Your task to perform on an android device: add a label to a message in the gmail app Image 0: 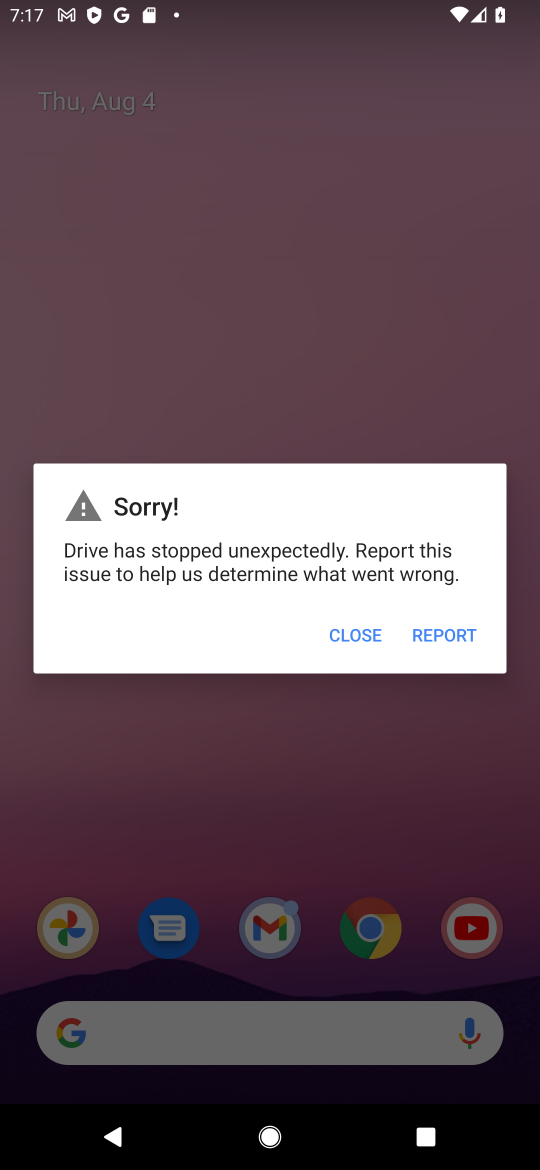
Step 0: click (345, 635)
Your task to perform on an android device: add a label to a message in the gmail app Image 1: 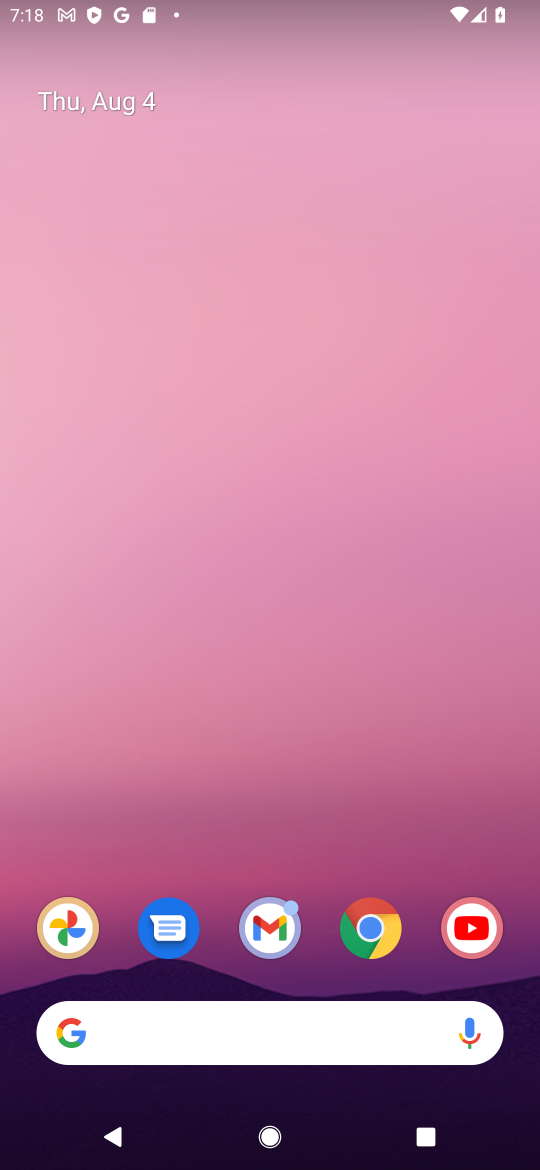
Step 1: click (272, 941)
Your task to perform on an android device: add a label to a message in the gmail app Image 2: 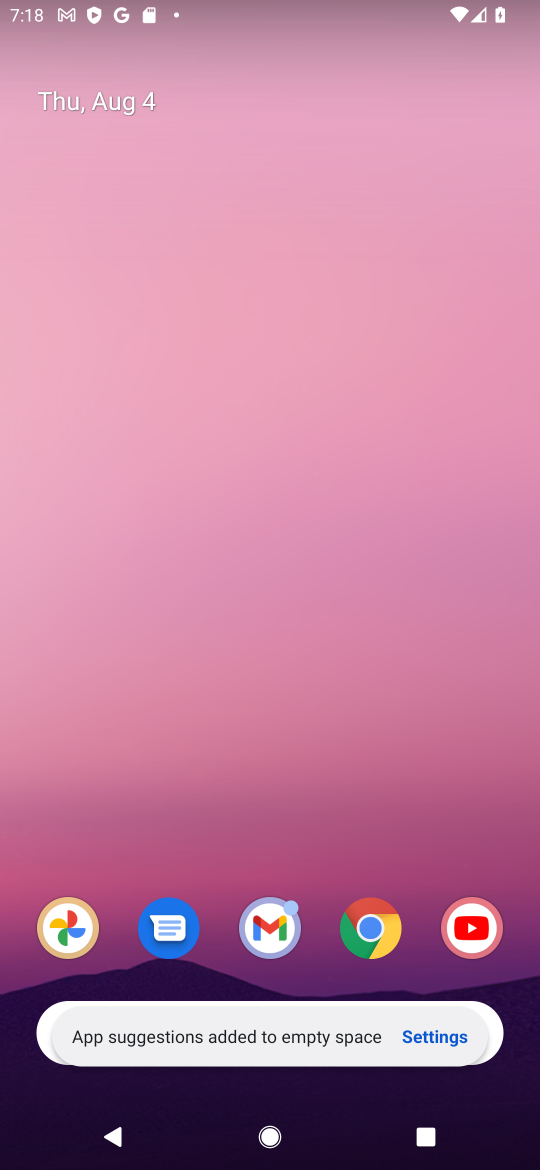
Step 2: click (279, 931)
Your task to perform on an android device: add a label to a message in the gmail app Image 3: 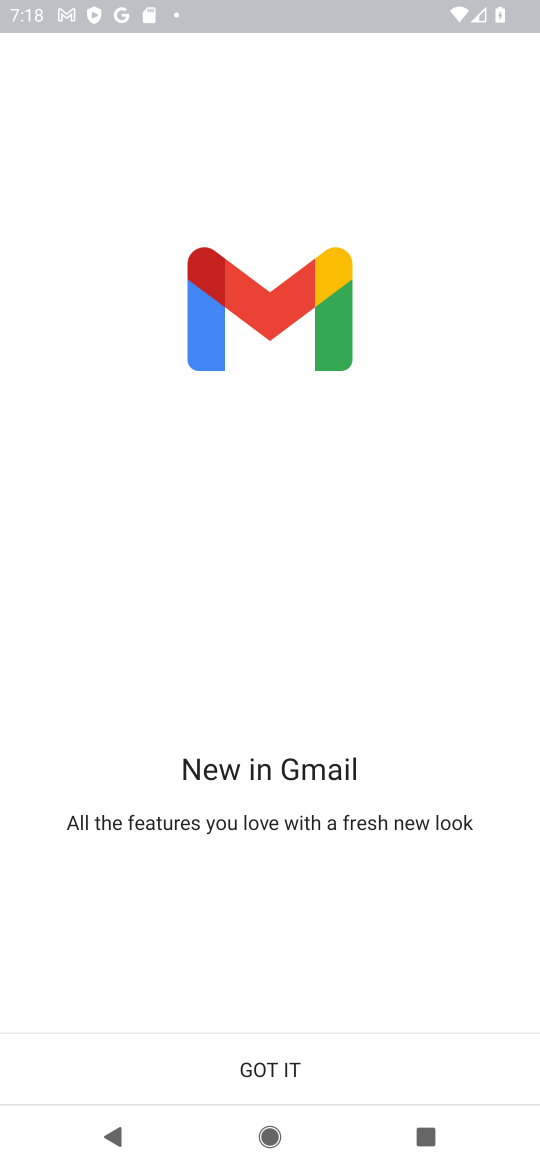
Step 3: click (283, 1073)
Your task to perform on an android device: add a label to a message in the gmail app Image 4: 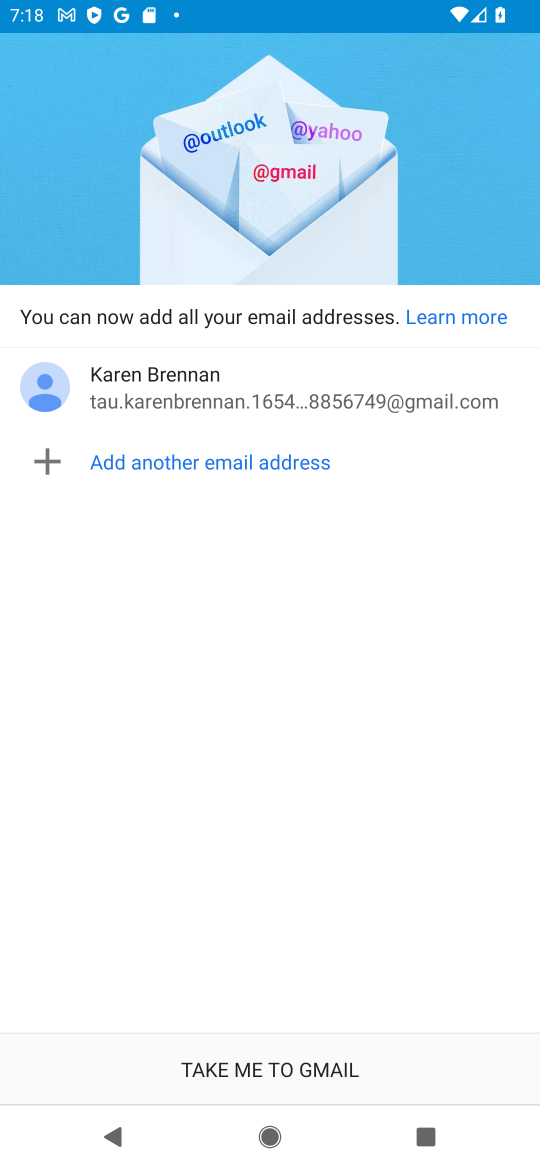
Step 4: click (291, 1075)
Your task to perform on an android device: add a label to a message in the gmail app Image 5: 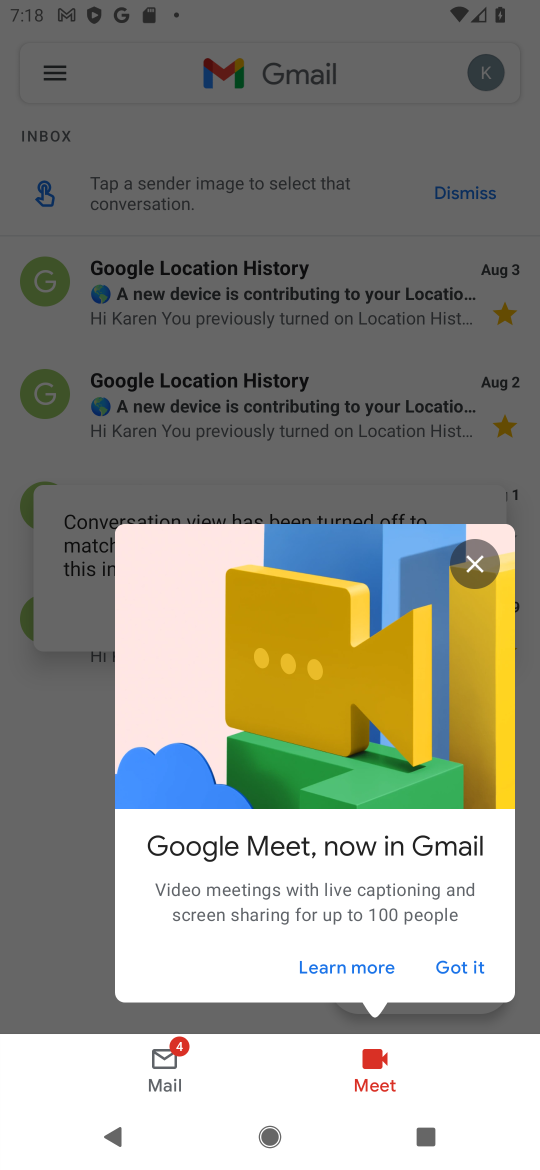
Step 5: click (479, 556)
Your task to perform on an android device: add a label to a message in the gmail app Image 6: 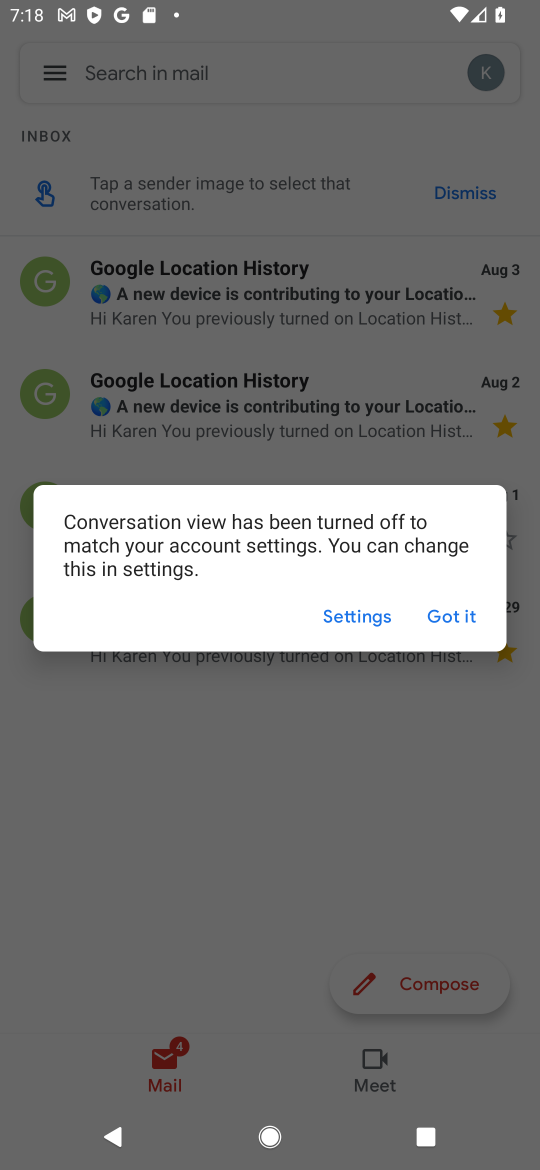
Step 6: click (455, 615)
Your task to perform on an android device: add a label to a message in the gmail app Image 7: 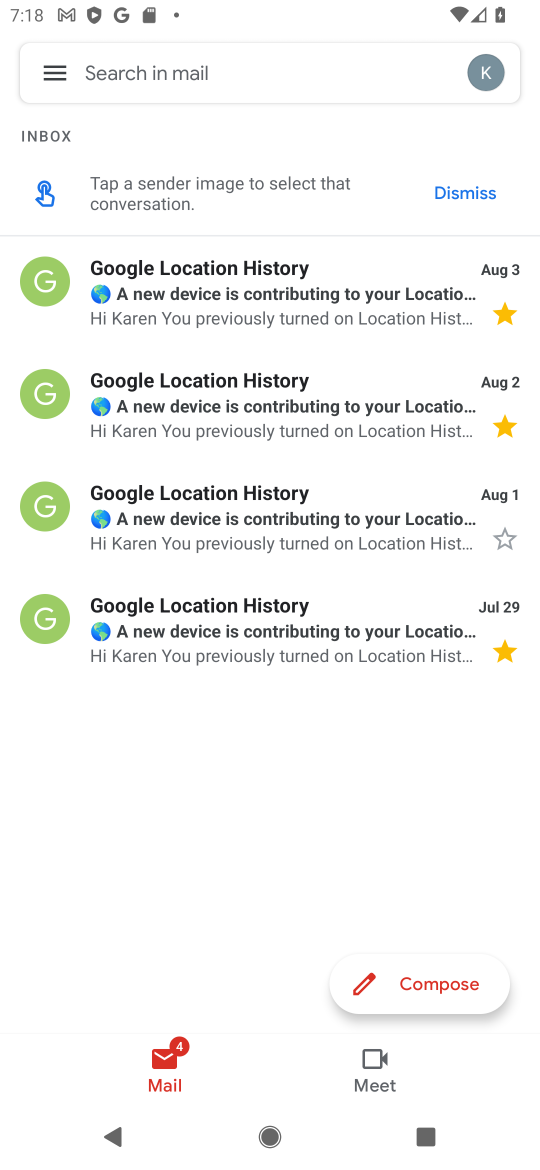
Step 7: click (44, 503)
Your task to perform on an android device: add a label to a message in the gmail app Image 8: 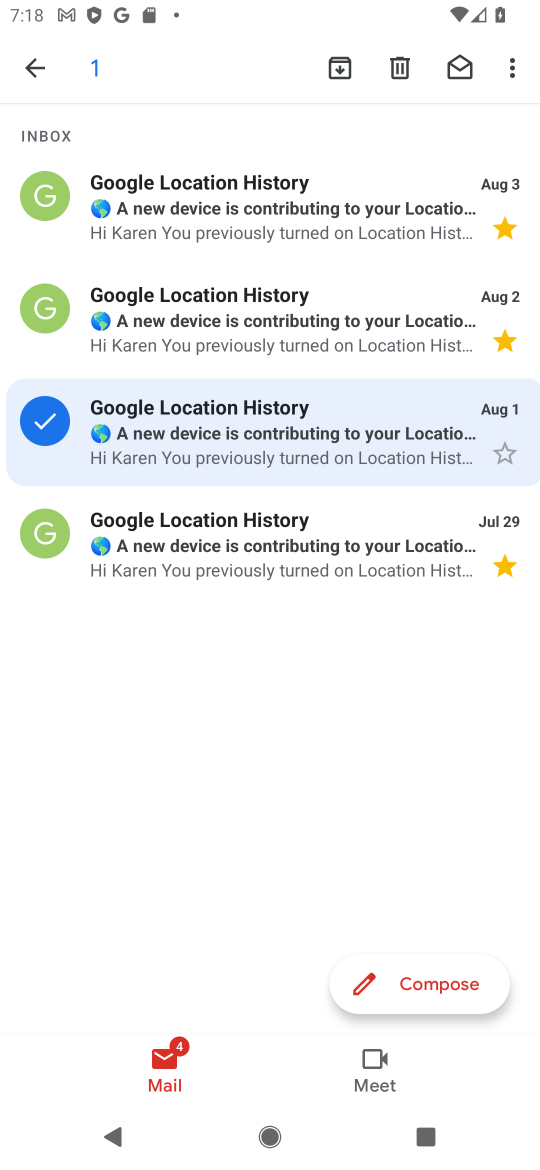
Step 8: click (502, 67)
Your task to perform on an android device: add a label to a message in the gmail app Image 9: 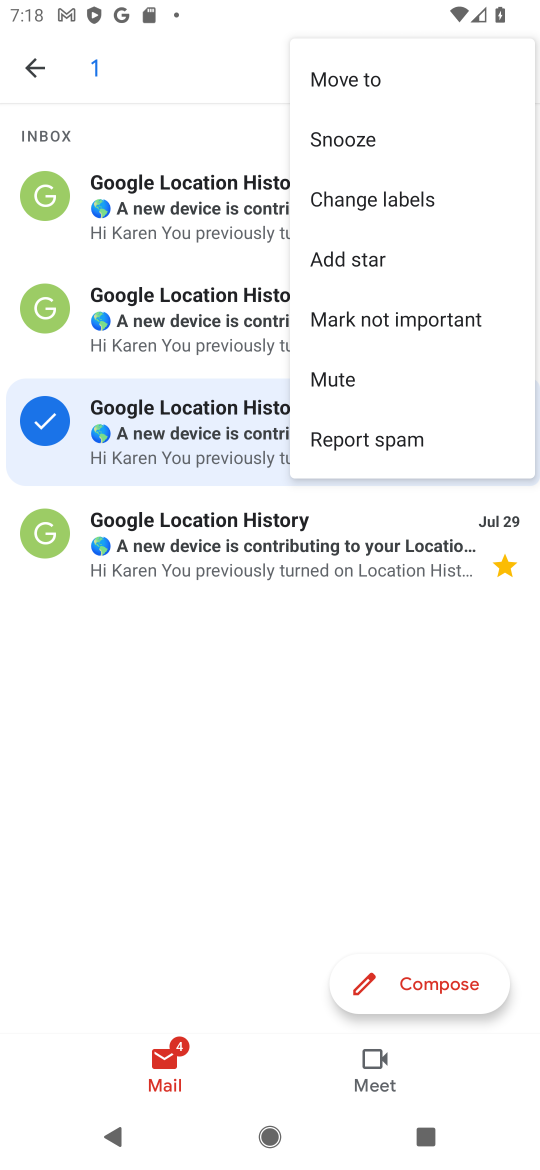
Step 9: click (414, 198)
Your task to perform on an android device: add a label to a message in the gmail app Image 10: 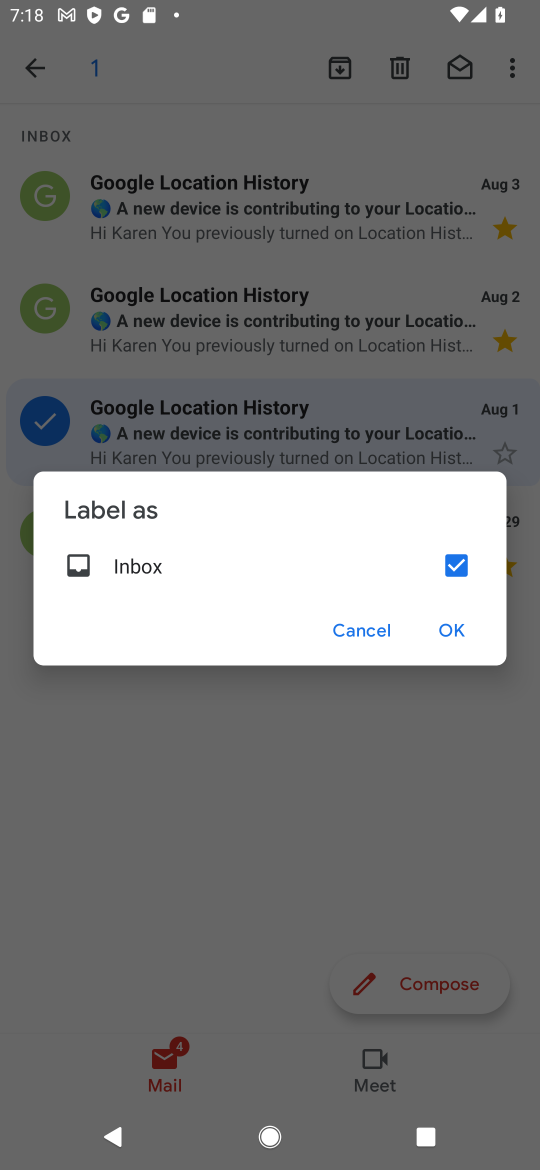
Step 10: click (460, 570)
Your task to perform on an android device: add a label to a message in the gmail app Image 11: 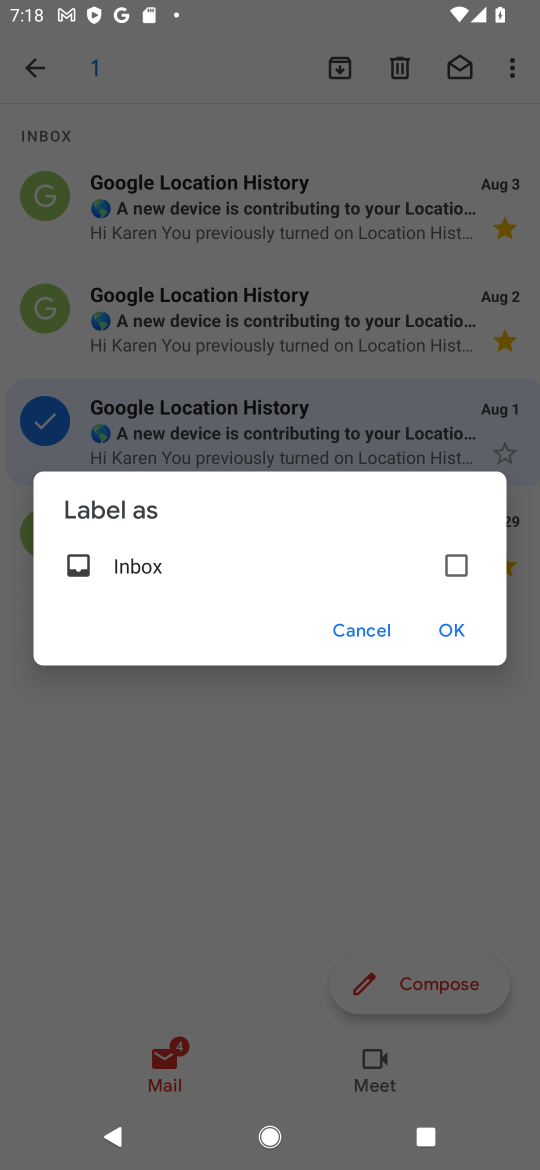
Step 11: click (456, 630)
Your task to perform on an android device: add a label to a message in the gmail app Image 12: 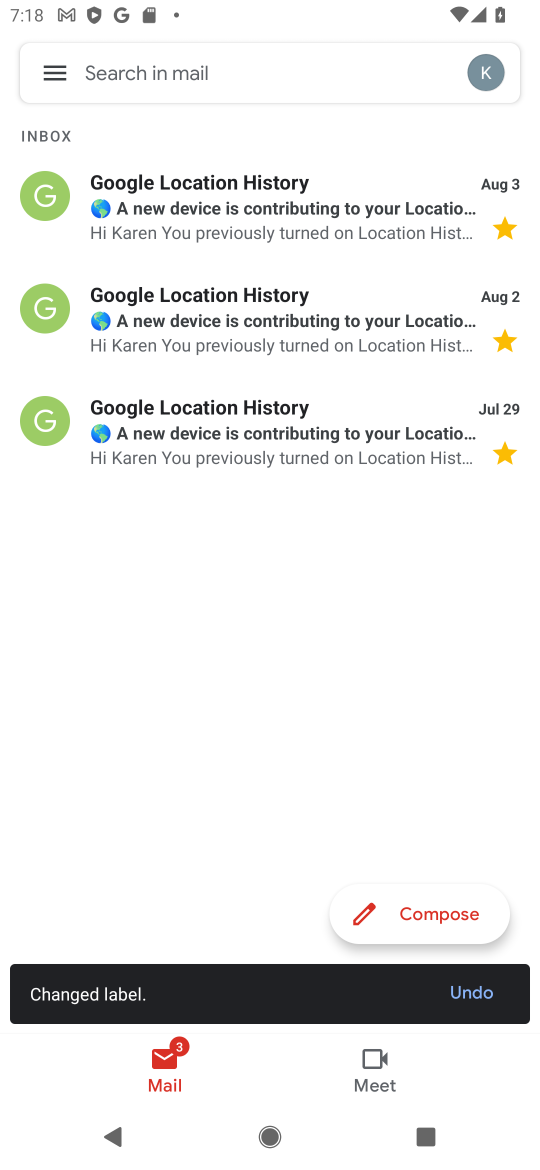
Step 12: task complete